Your task to perform on an android device: Open Google Chrome Image 0: 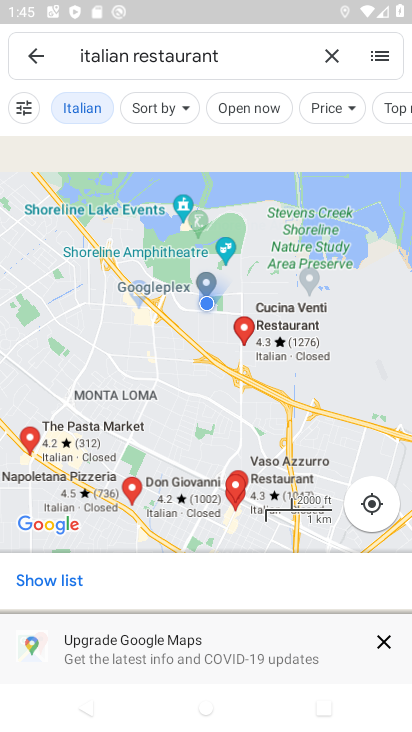
Step 0: press home button
Your task to perform on an android device: Open Google Chrome Image 1: 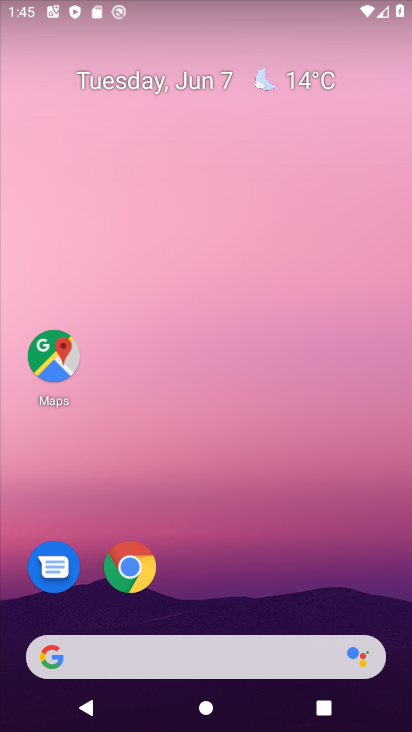
Step 1: drag from (284, 399) to (200, 14)
Your task to perform on an android device: Open Google Chrome Image 2: 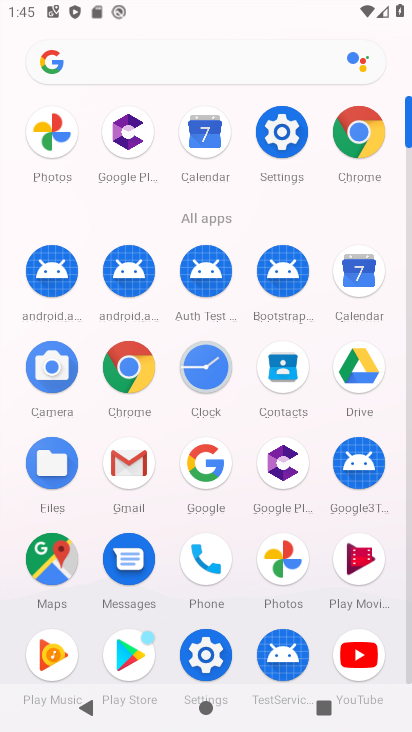
Step 2: click (361, 163)
Your task to perform on an android device: Open Google Chrome Image 3: 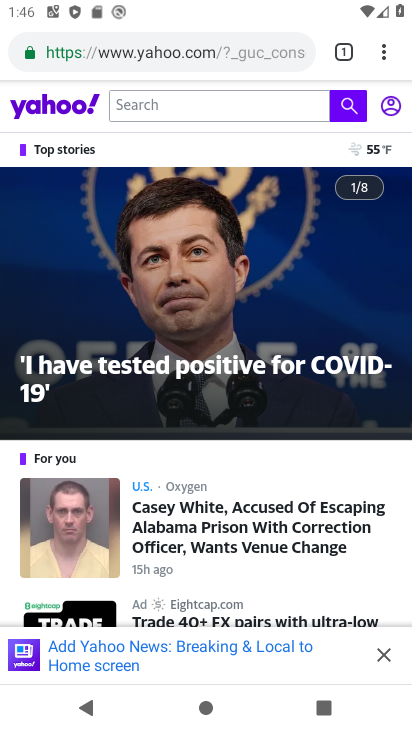
Step 3: press home button
Your task to perform on an android device: Open Google Chrome Image 4: 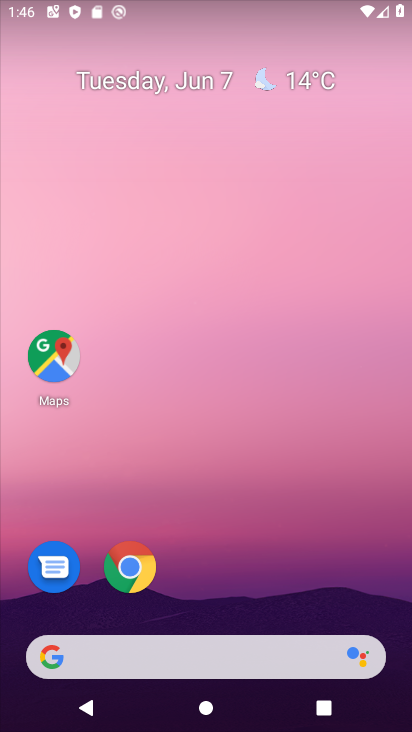
Step 4: drag from (380, 523) to (307, 128)
Your task to perform on an android device: Open Google Chrome Image 5: 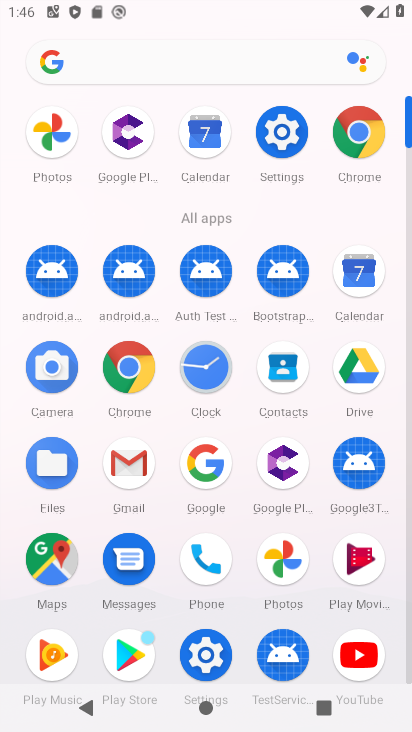
Step 5: click (202, 469)
Your task to perform on an android device: Open Google Chrome Image 6: 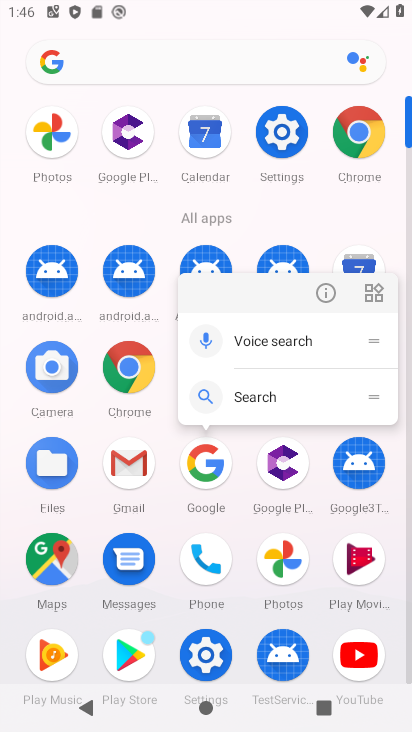
Step 6: click (202, 458)
Your task to perform on an android device: Open Google Chrome Image 7: 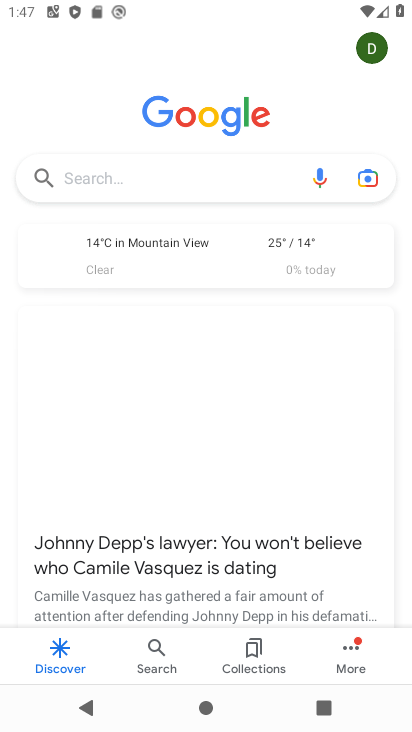
Step 7: task complete